Your task to perform on an android device: open chrome privacy settings Image 0: 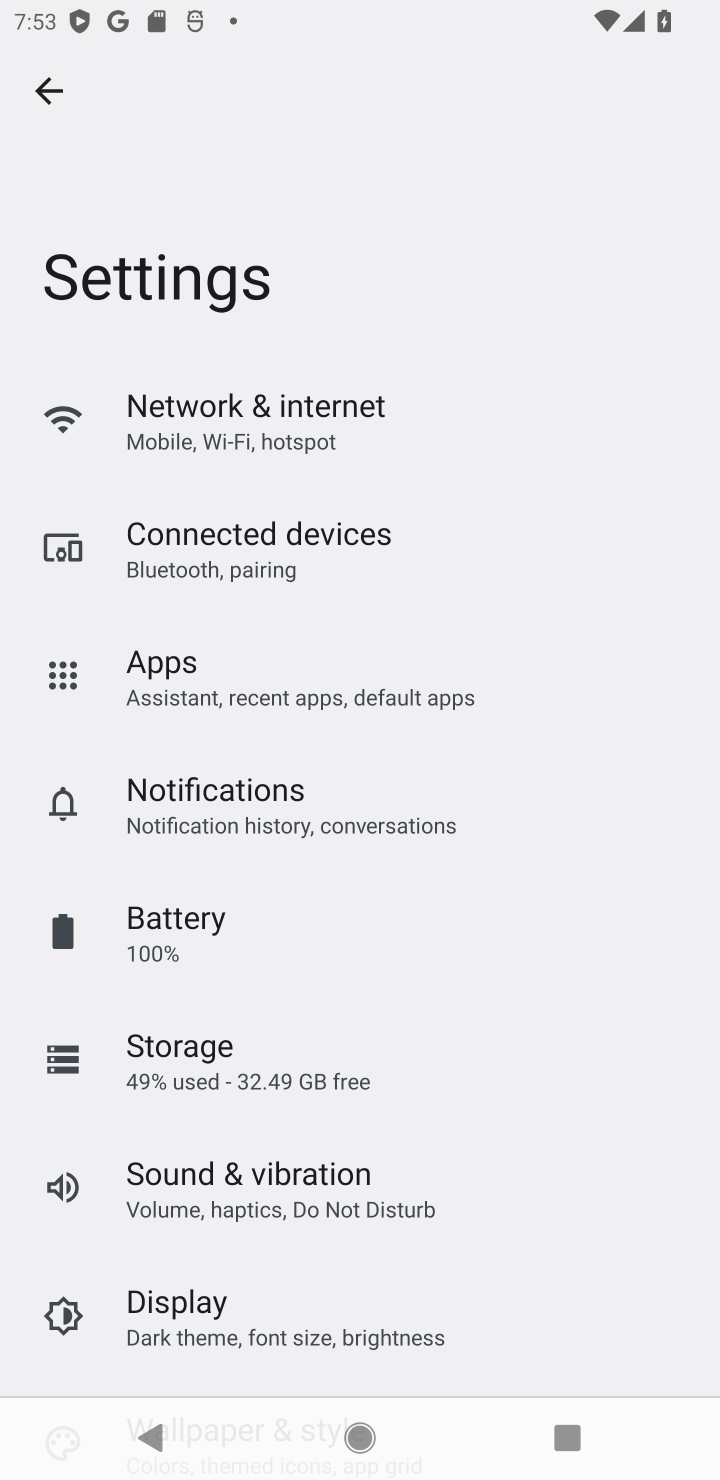
Step 0: drag from (469, 1066) to (480, 447)
Your task to perform on an android device: open chrome privacy settings Image 1: 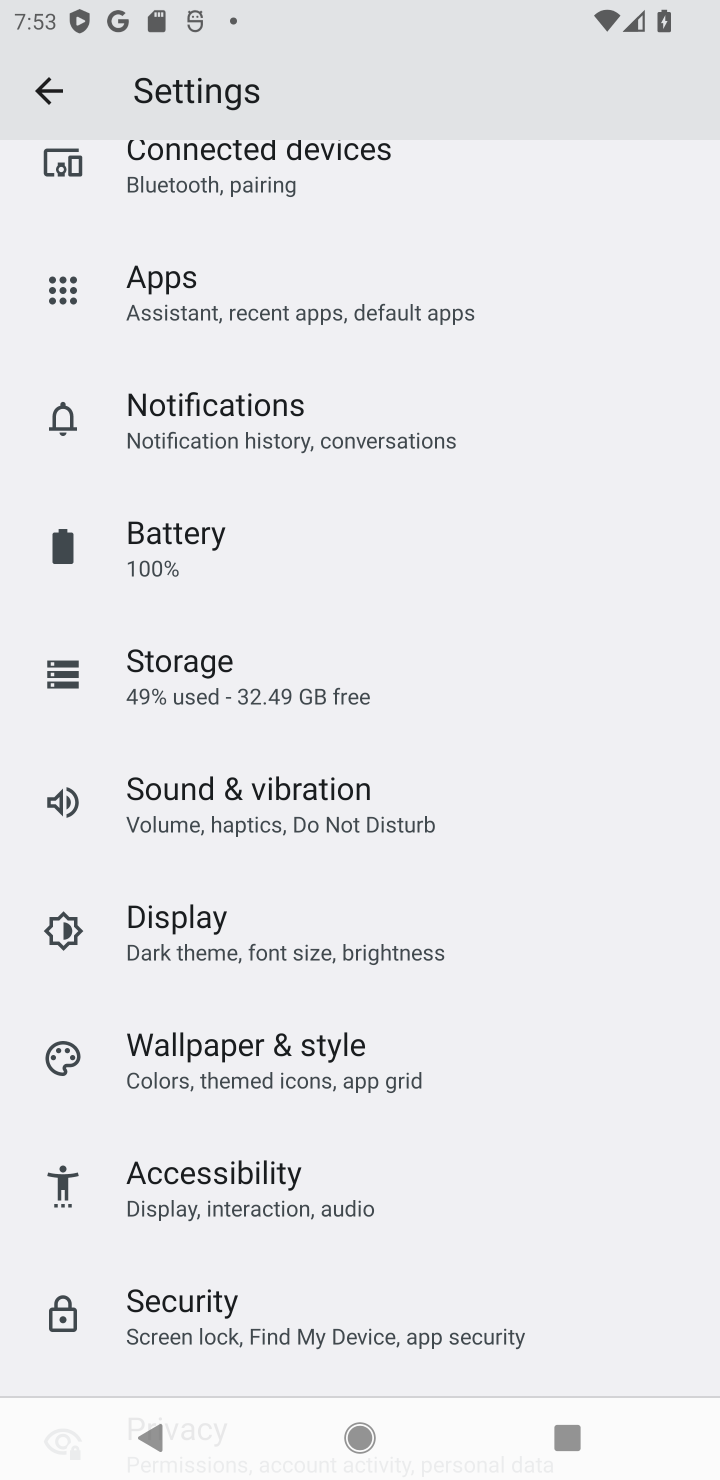
Step 1: click (355, 1428)
Your task to perform on an android device: open chrome privacy settings Image 2: 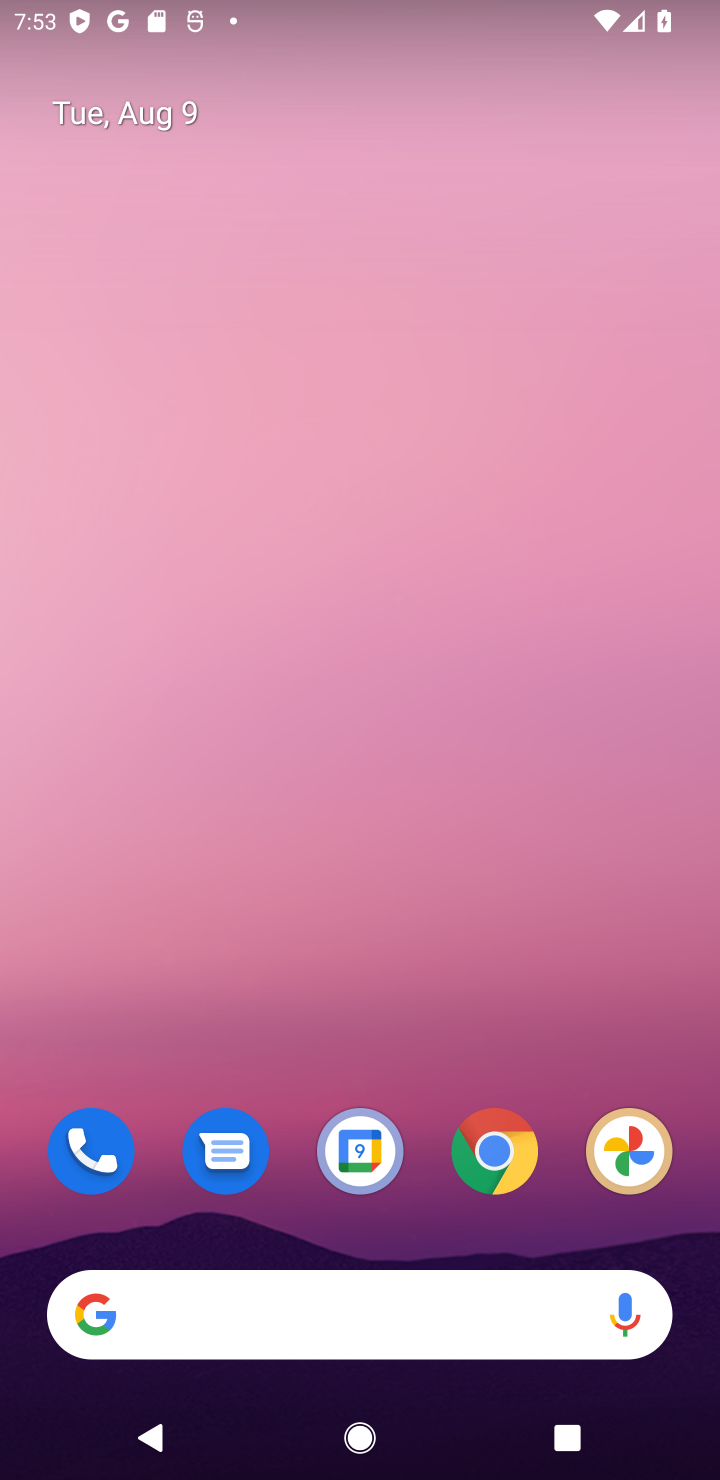
Step 2: click (497, 1121)
Your task to perform on an android device: open chrome privacy settings Image 3: 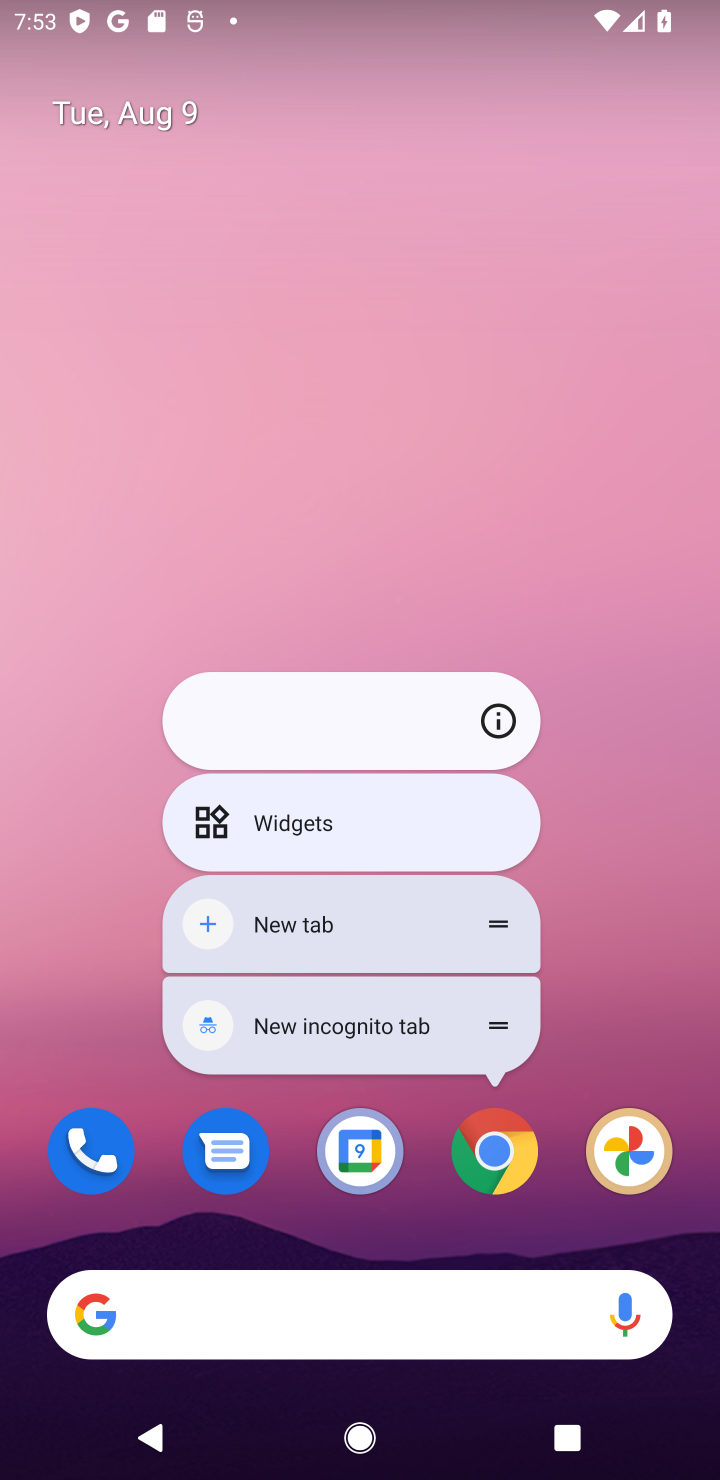
Step 3: click (492, 1144)
Your task to perform on an android device: open chrome privacy settings Image 4: 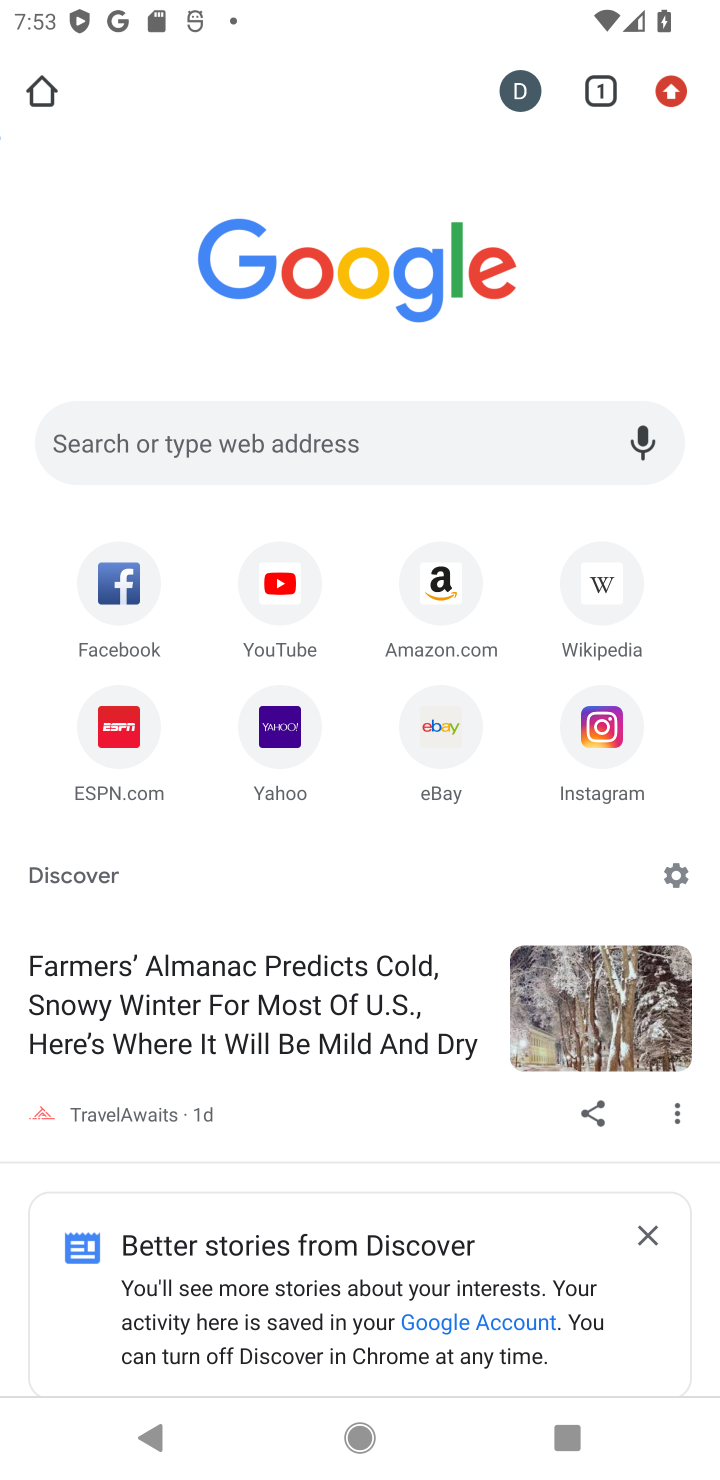
Step 4: click (666, 91)
Your task to perform on an android device: open chrome privacy settings Image 5: 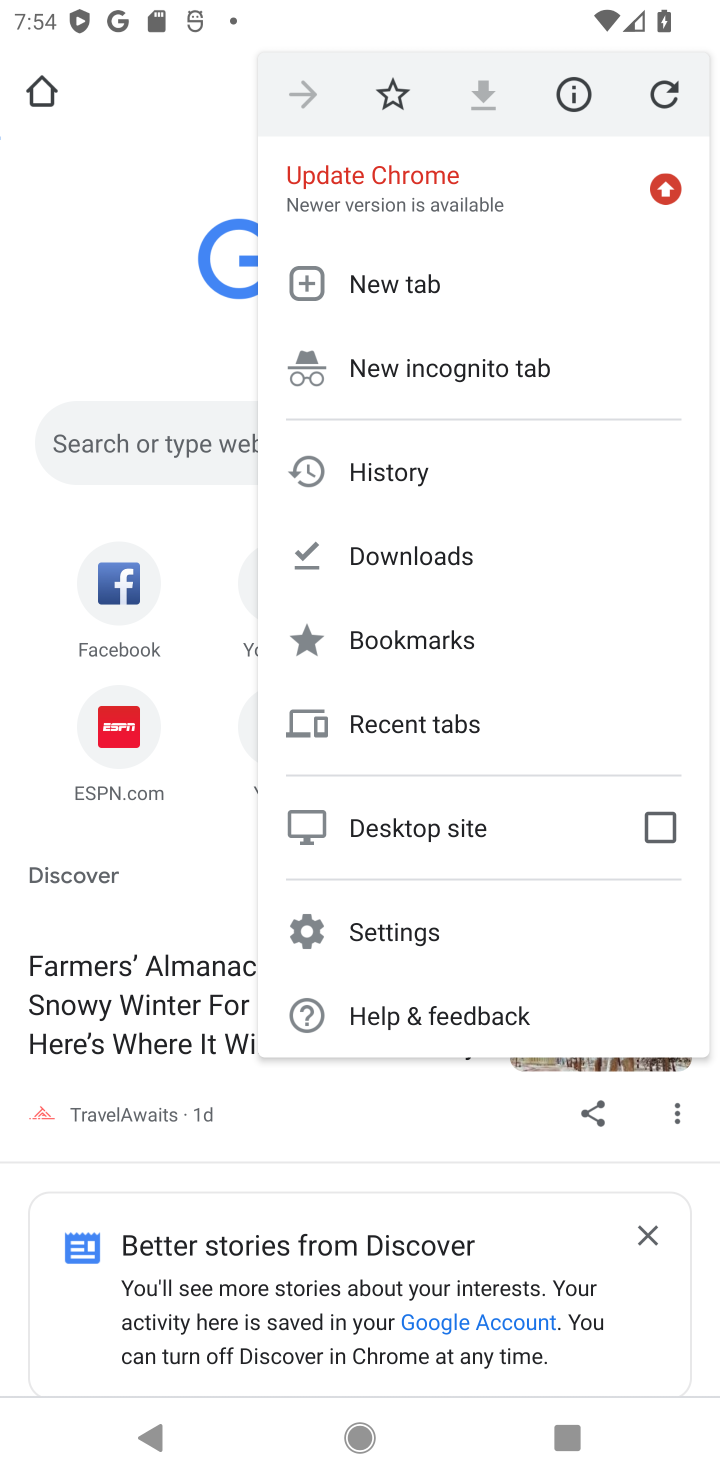
Step 5: click (406, 932)
Your task to perform on an android device: open chrome privacy settings Image 6: 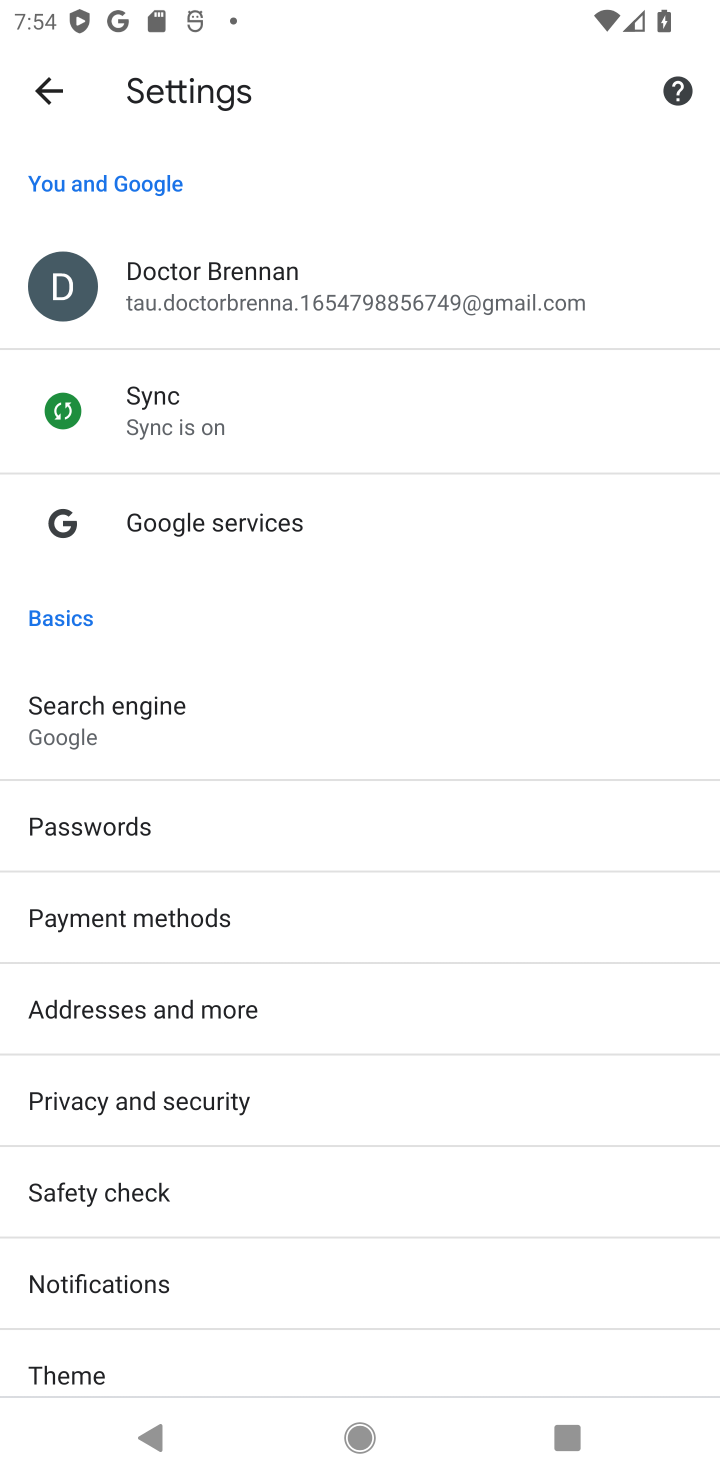
Step 6: click (156, 1103)
Your task to perform on an android device: open chrome privacy settings Image 7: 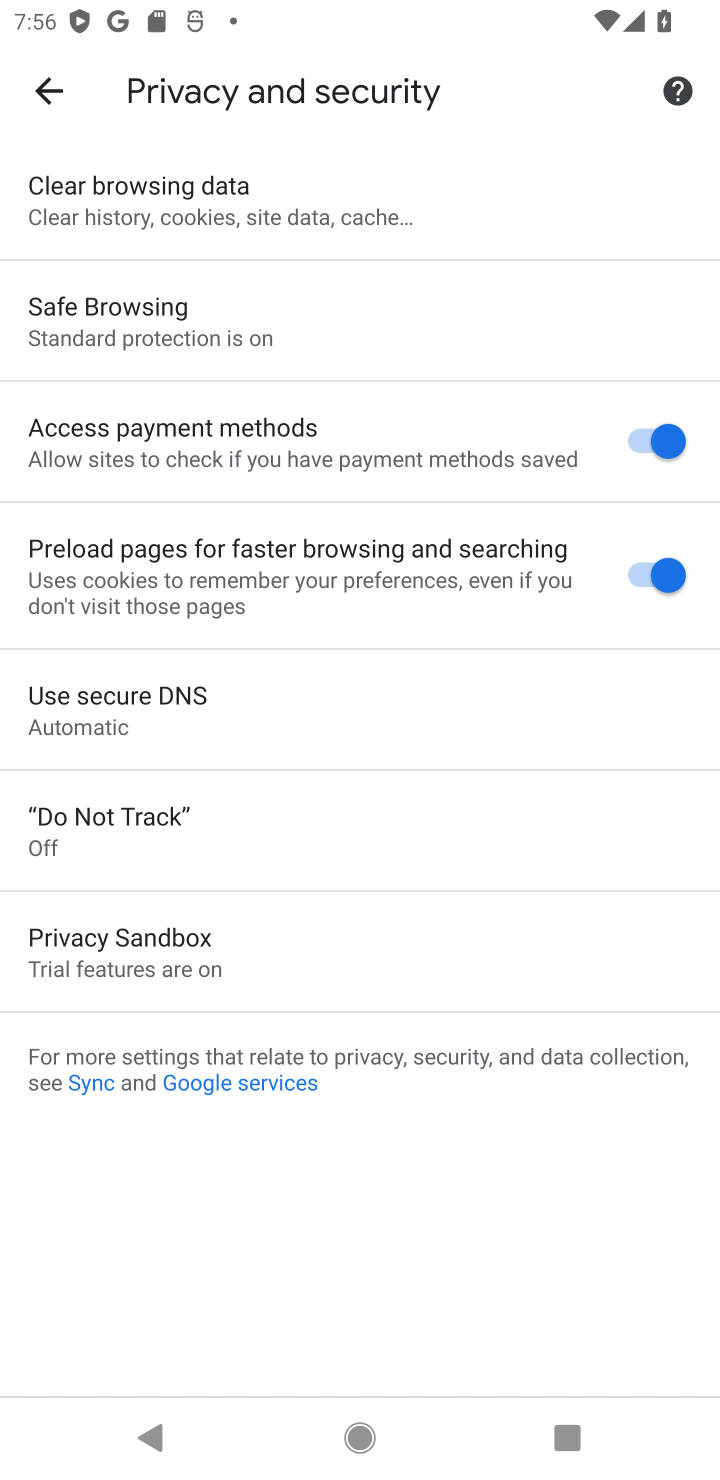
Step 7: task complete